Your task to perform on an android device: Turn off the flashlight Image 0: 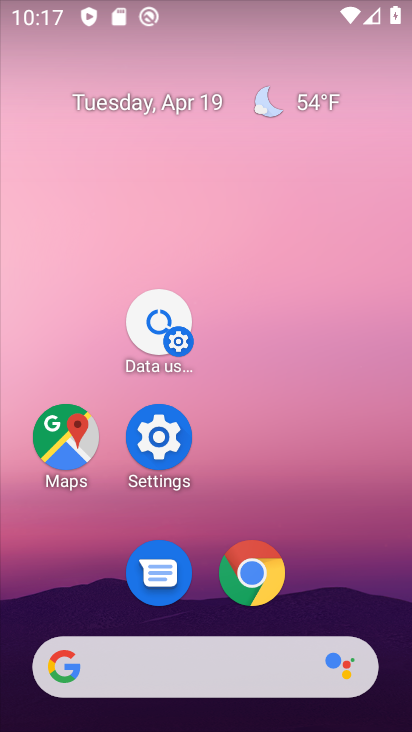
Step 0: drag from (177, 10) to (219, 632)
Your task to perform on an android device: Turn off the flashlight Image 1: 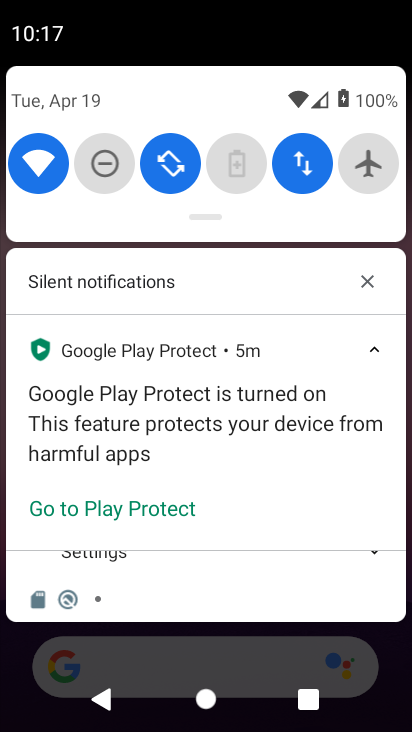
Step 1: task complete